Your task to perform on an android device: check data usage Image 0: 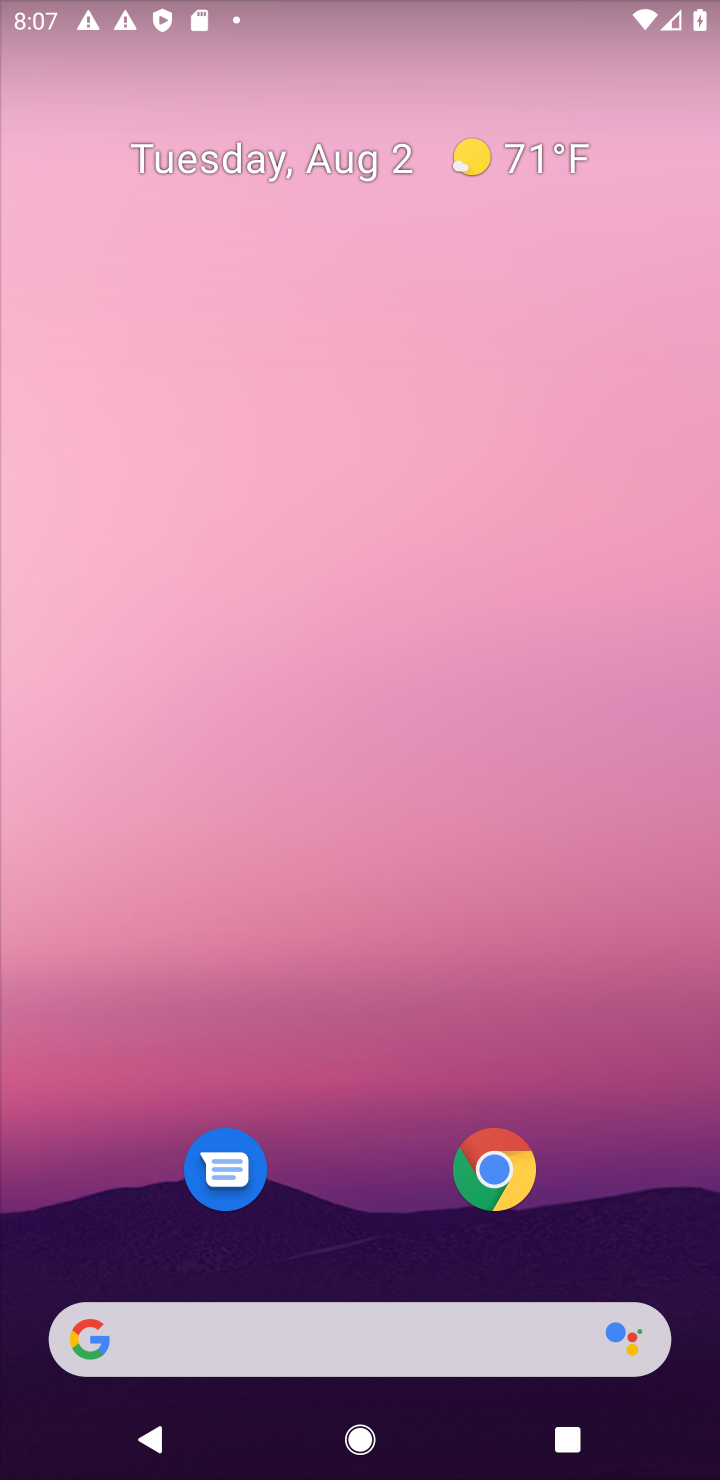
Step 0: drag from (371, 1163) to (381, 6)
Your task to perform on an android device: check data usage Image 1: 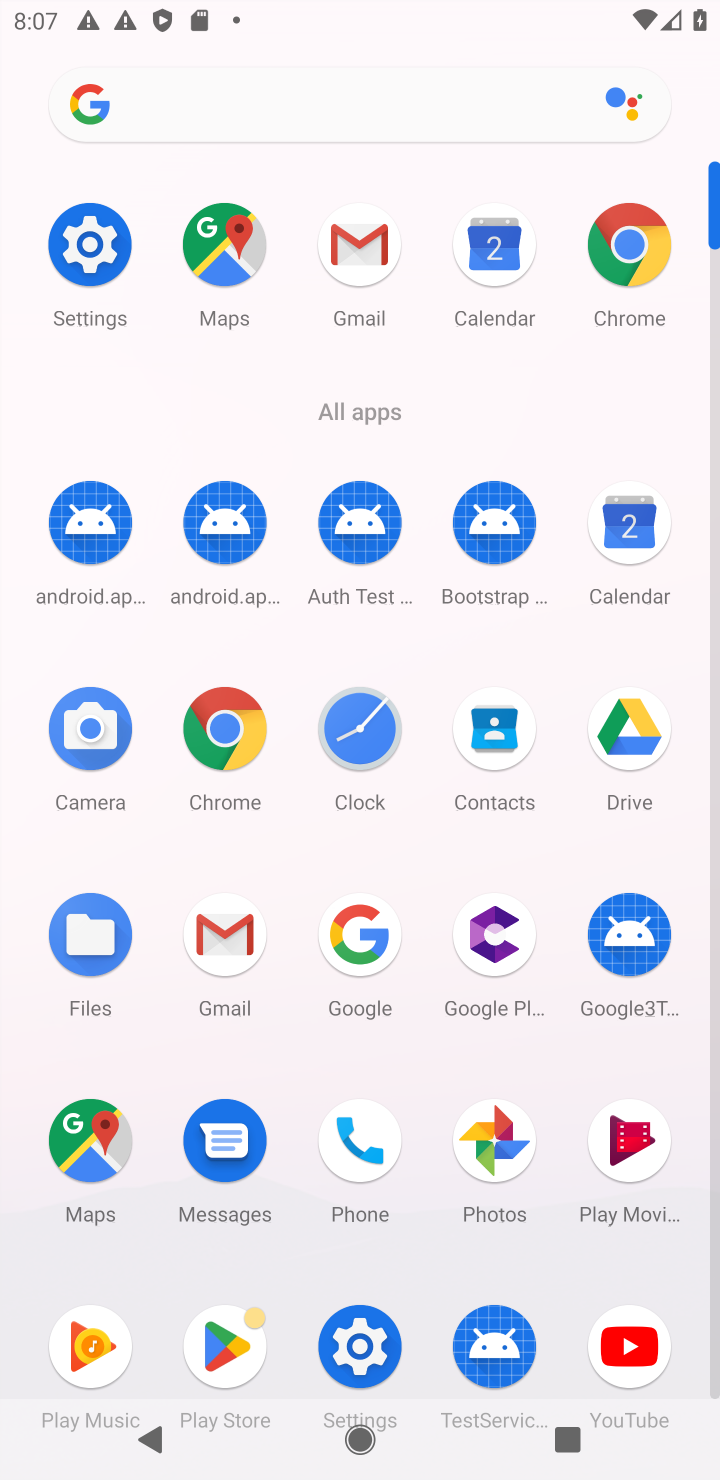
Step 1: click (90, 229)
Your task to perform on an android device: check data usage Image 2: 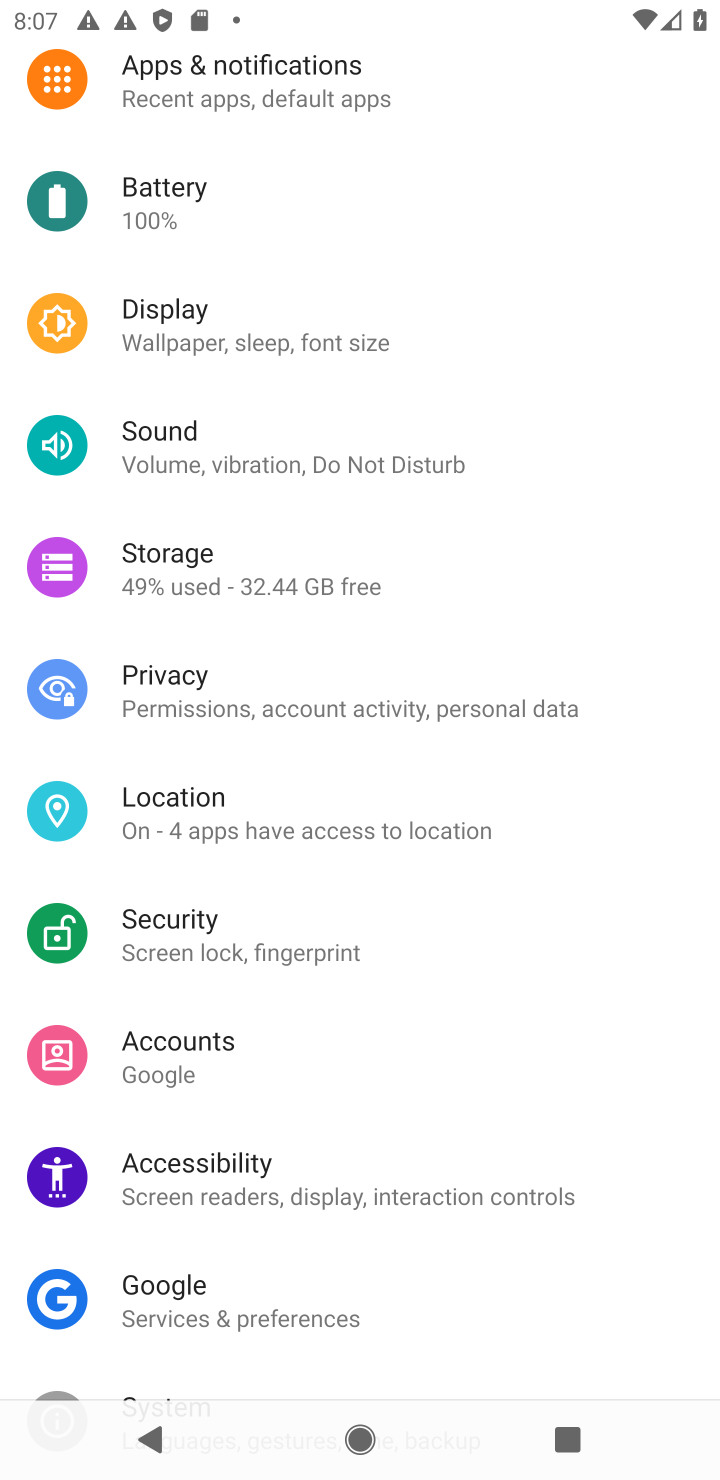
Step 2: drag from (339, 219) to (414, 826)
Your task to perform on an android device: check data usage Image 3: 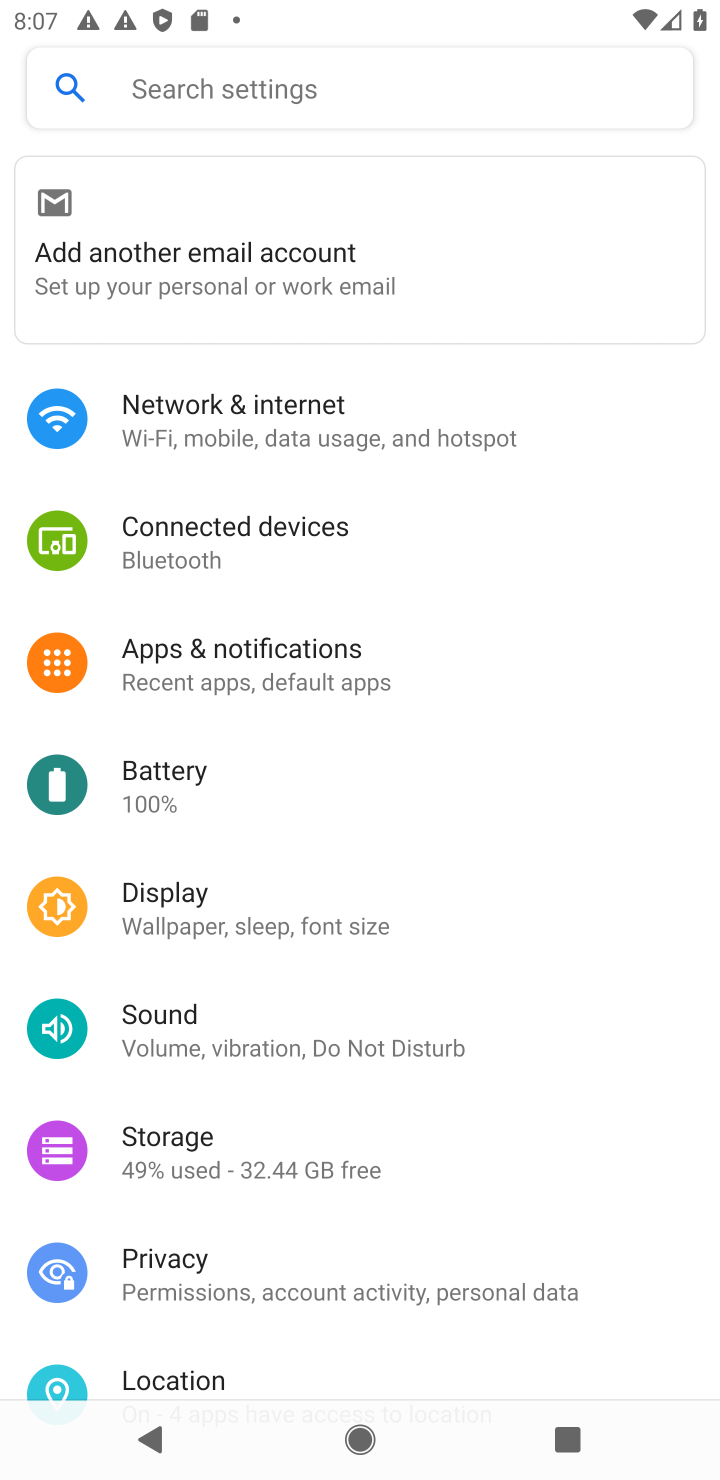
Step 3: click (350, 418)
Your task to perform on an android device: check data usage Image 4: 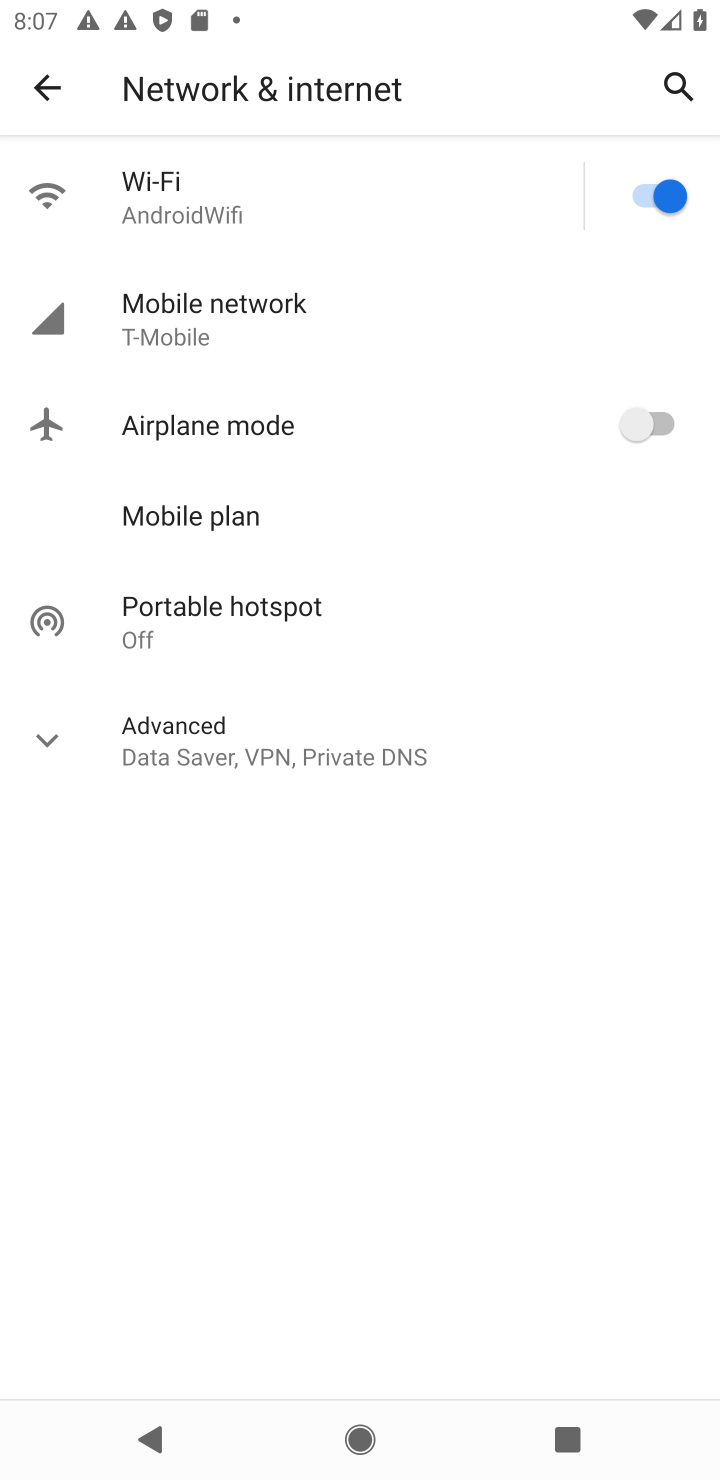
Step 4: click (269, 311)
Your task to perform on an android device: check data usage Image 5: 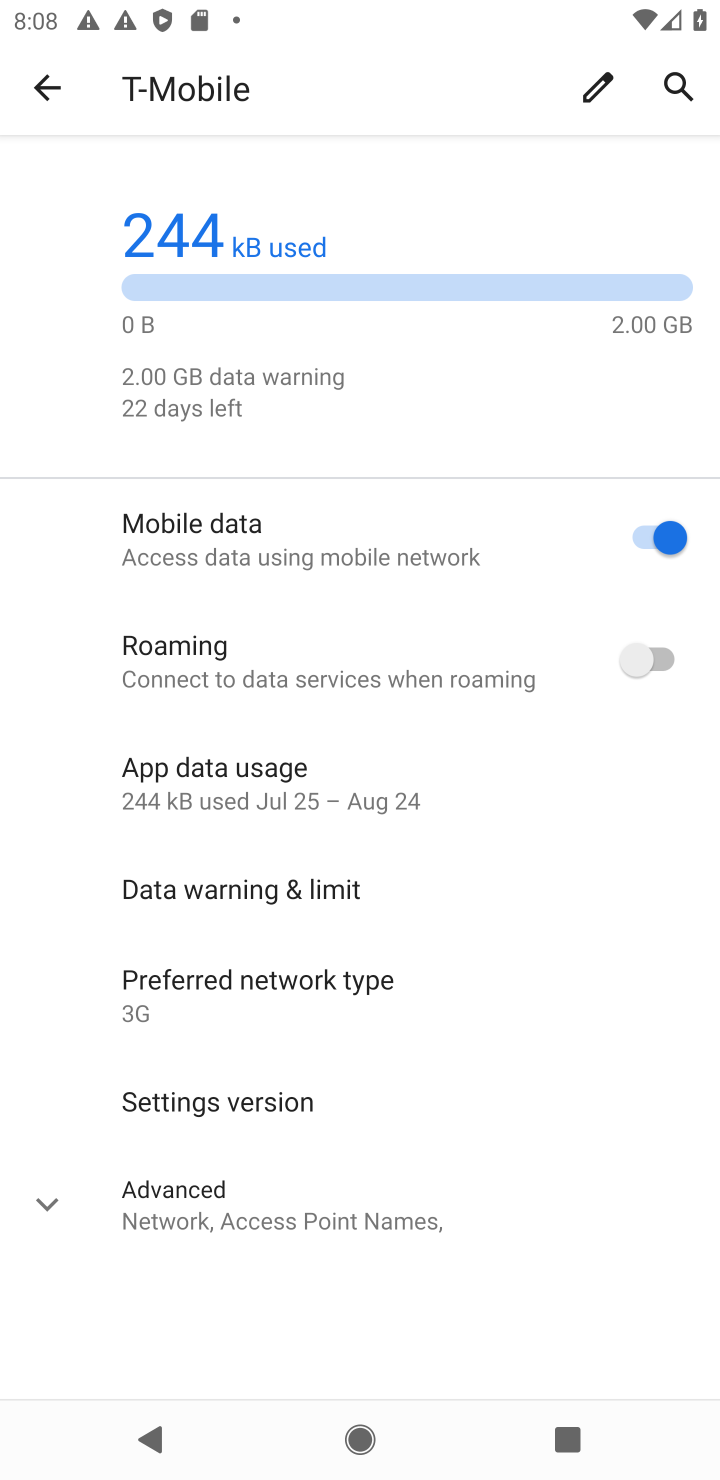
Step 5: task complete